Your task to perform on an android device: toggle pop-ups in chrome Image 0: 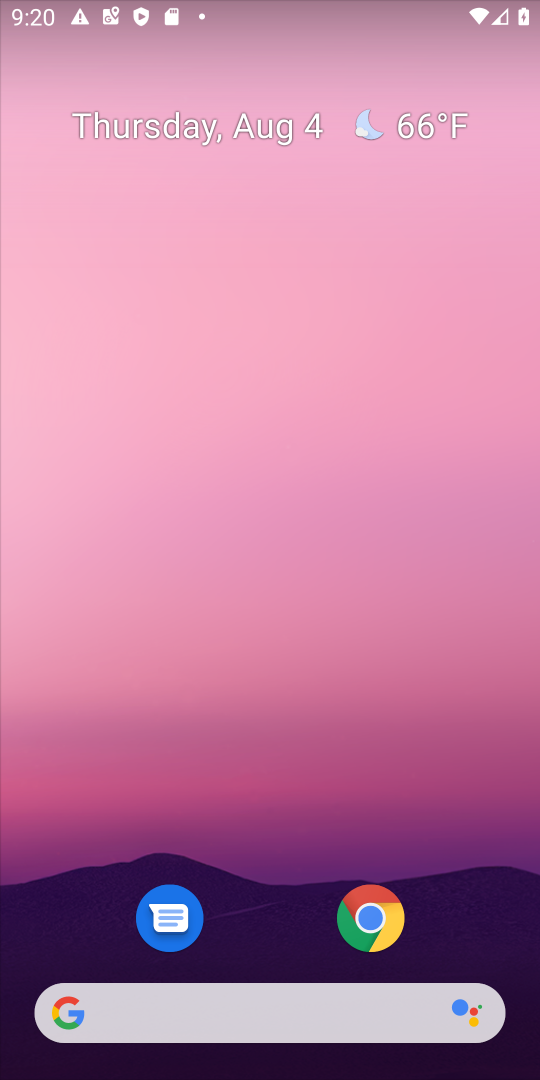
Step 0: click (365, 911)
Your task to perform on an android device: toggle pop-ups in chrome Image 1: 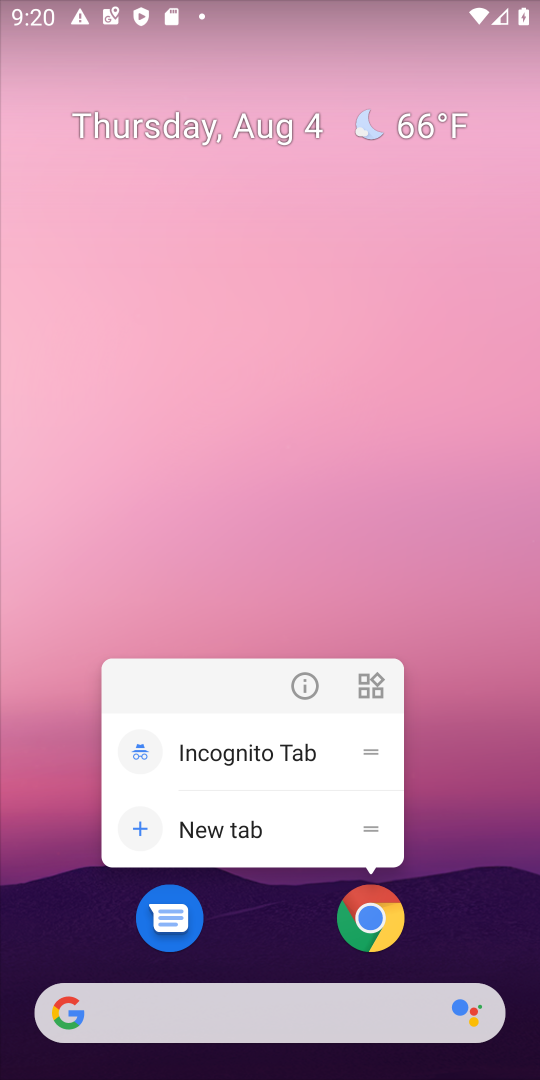
Step 1: drag from (441, 944) to (431, 314)
Your task to perform on an android device: toggle pop-ups in chrome Image 2: 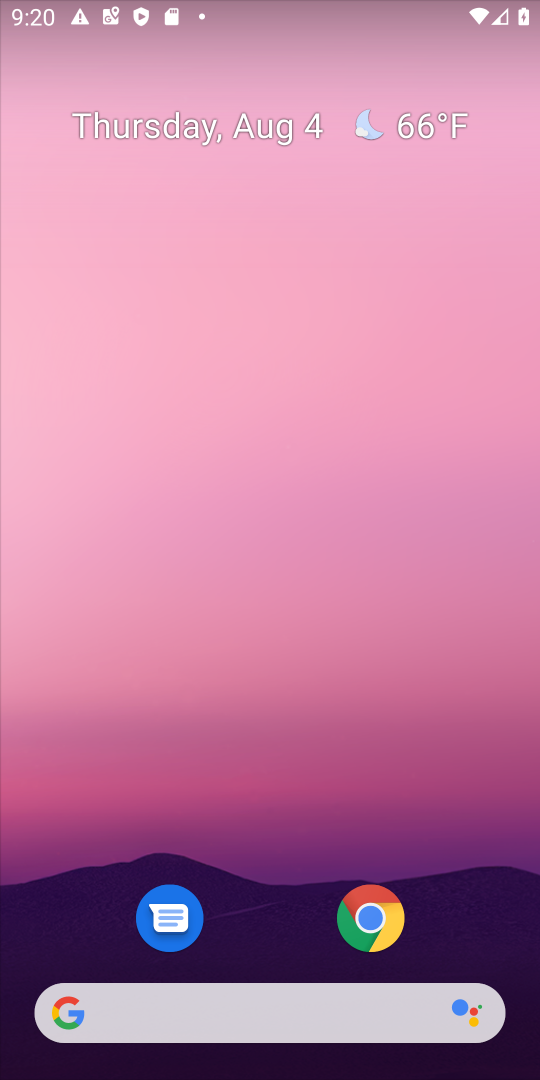
Step 2: drag from (437, 964) to (432, 46)
Your task to perform on an android device: toggle pop-ups in chrome Image 3: 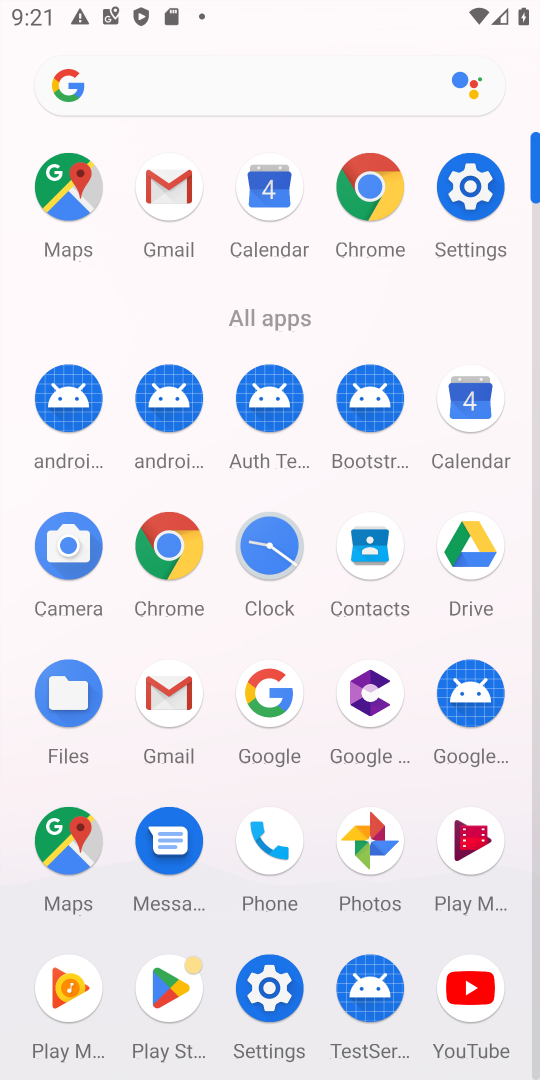
Step 3: click (356, 175)
Your task to perform on an android device: toggle pop-ups in chrome Image 4: 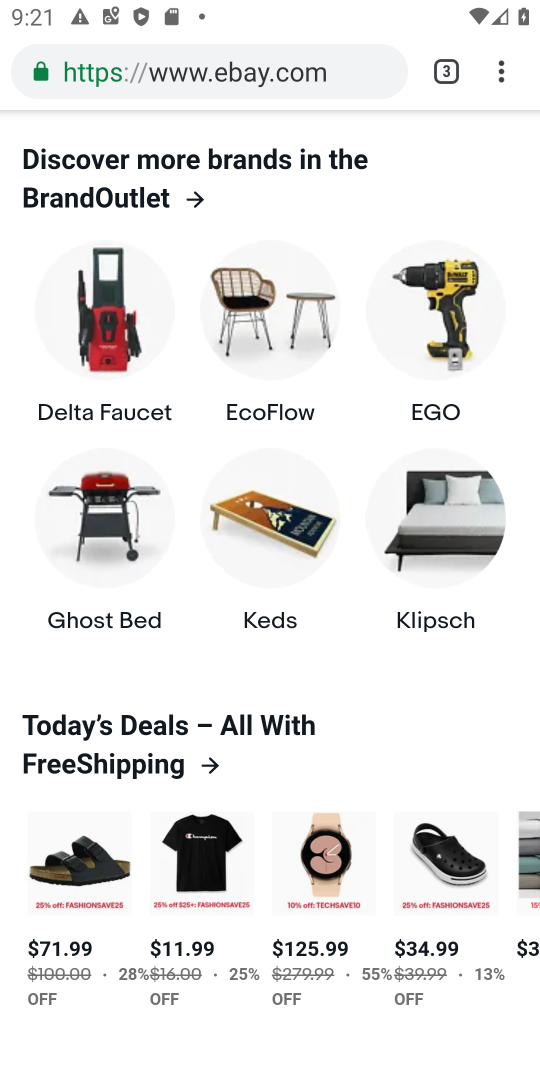
Step 4: click (504, 76)
Your task to perform on an android device: toggle pop-ups in chrome Image 5: 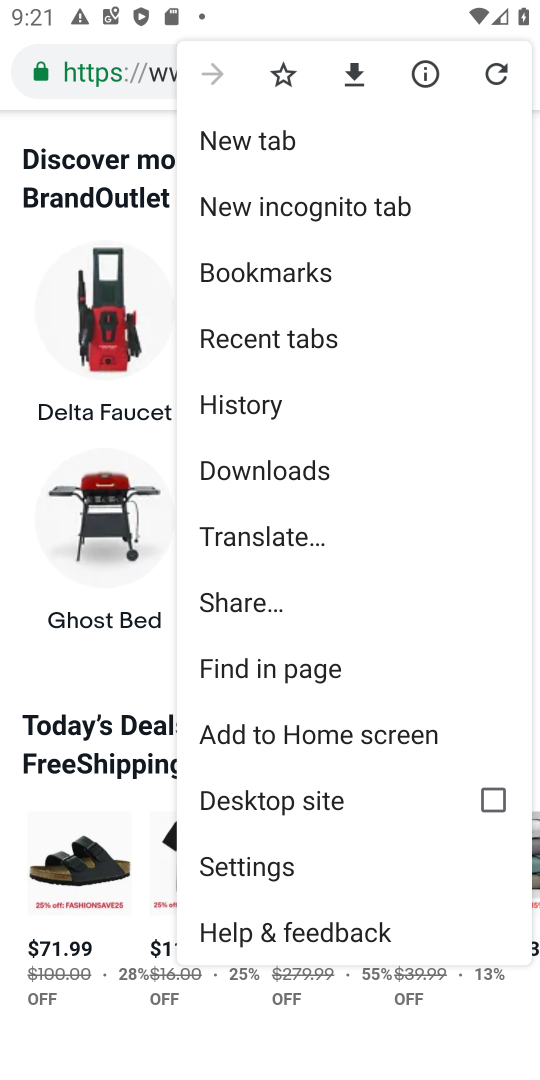
Step 5: click (290, 866)
Your task to perform on an android device: toggle pop-ups in chrome Image 6: 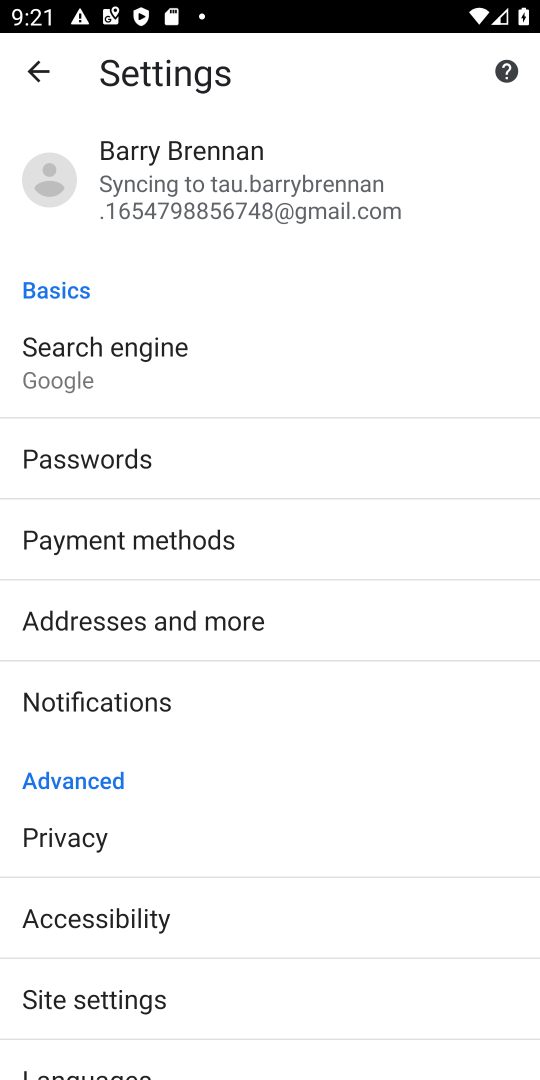
Step 6: click (225, 974)
Your task to perform on an android device: toggle pop-ups in chrome Image 7: 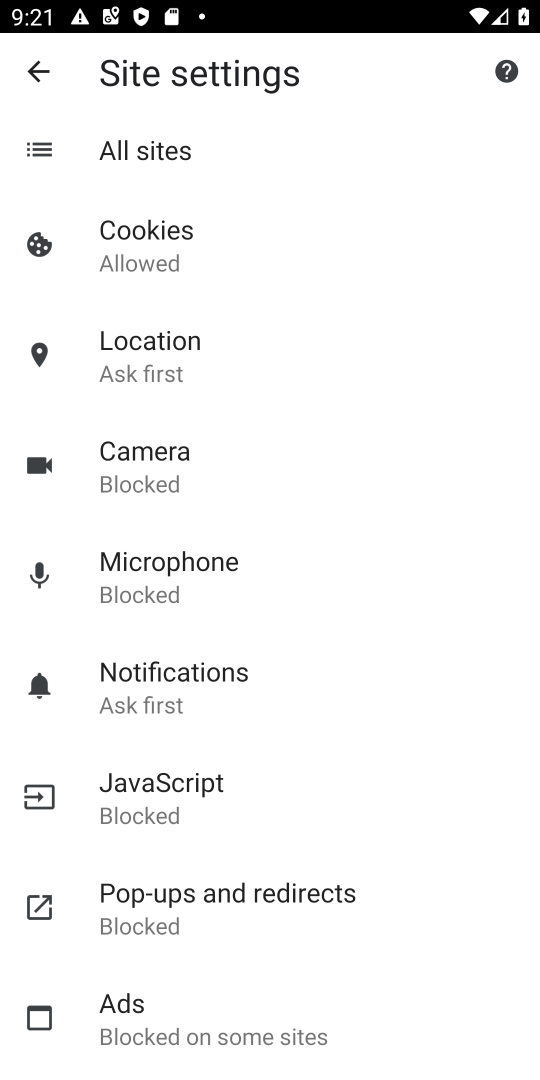
Step 7: click (242, 923)
Your task to perform on an android device: toggle pop-ups in chrome Image 8: 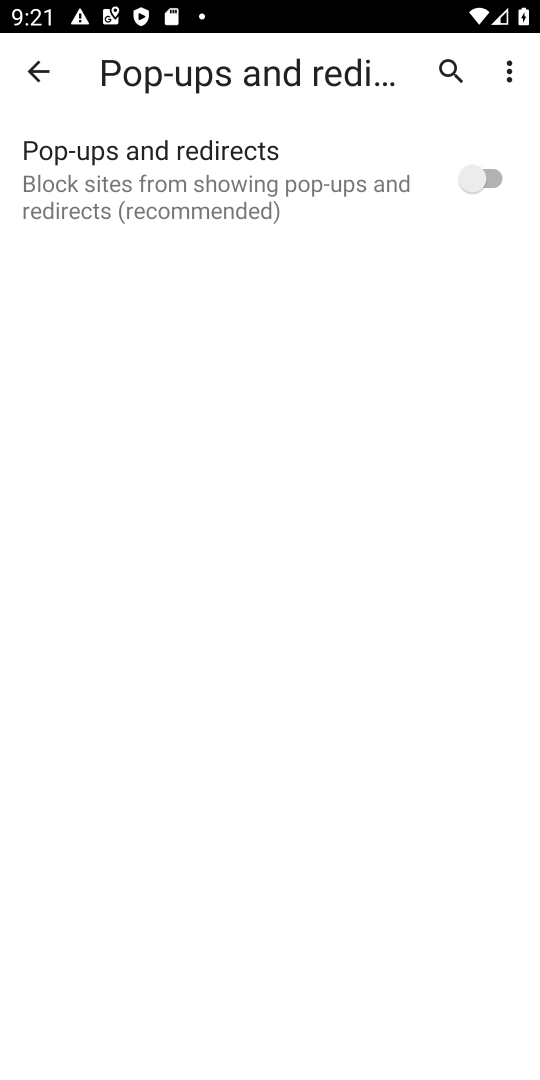
Step 8: click (494, 166)
Your task to perform on an android device: toggle pop-ups in chrome Image 9: 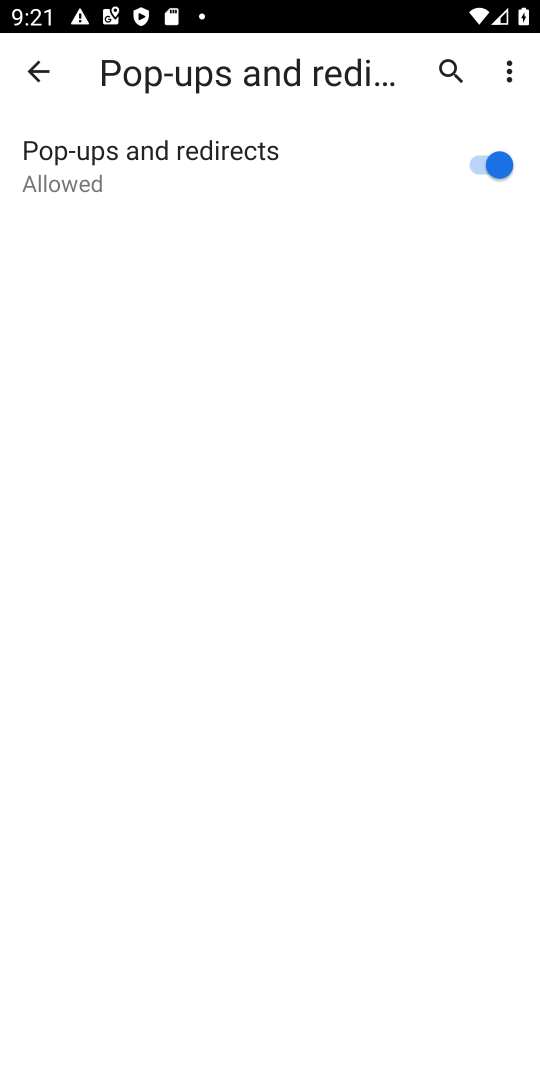
Step 9: task complete